Your task to perform on an android device: open the mobile data screen to see how much data has been used Image 0: 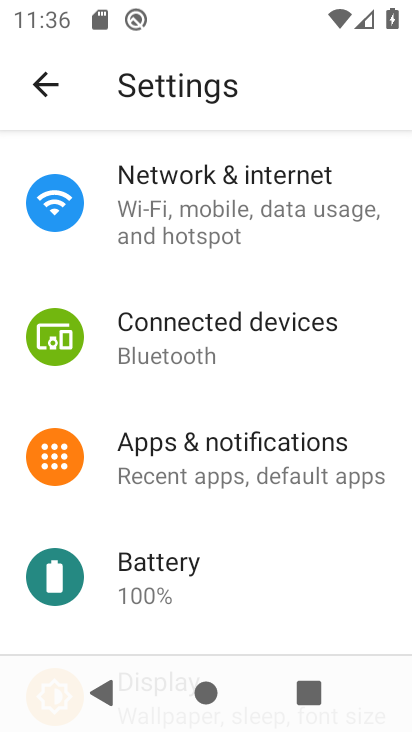
Step 0: click (188, 197)
Your task to perform on an android device: open the mobile data screen to see how much data has been used Image 1: 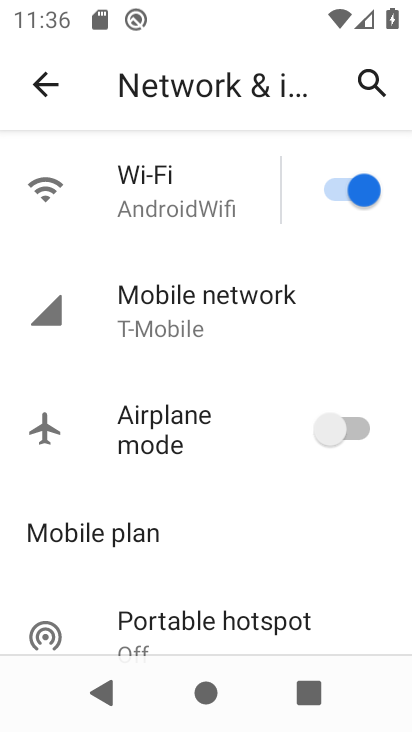
Step 1: click (226, 314)
Your task to perform on an android device: open the mobile data screen to see how much data has been used Image 2: 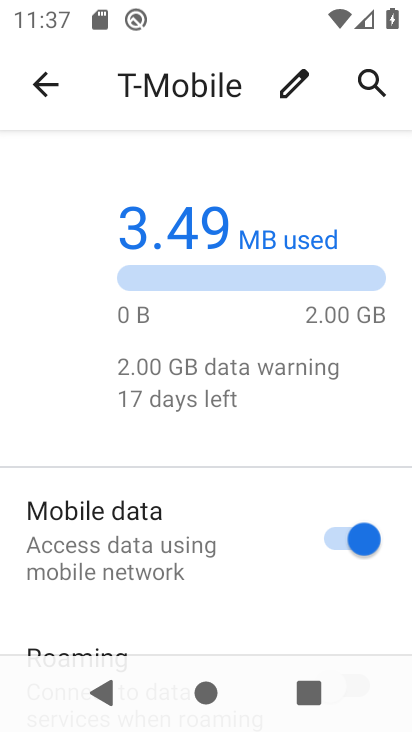
Step 2: drag from (221, 601) to (220, 243)
Your task to perform on an android device: open the mobile data screen to see how much data has been used Image 3: 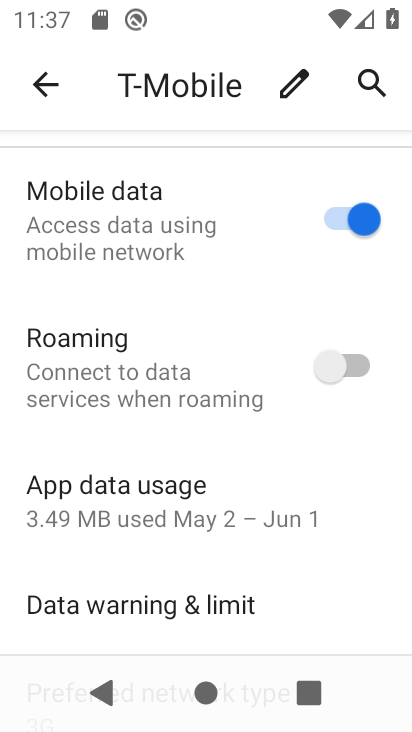
Step 3: click (236, 498)
Your task to perform on an android device: open the mobile data screen to see how much data has been used Image 4: 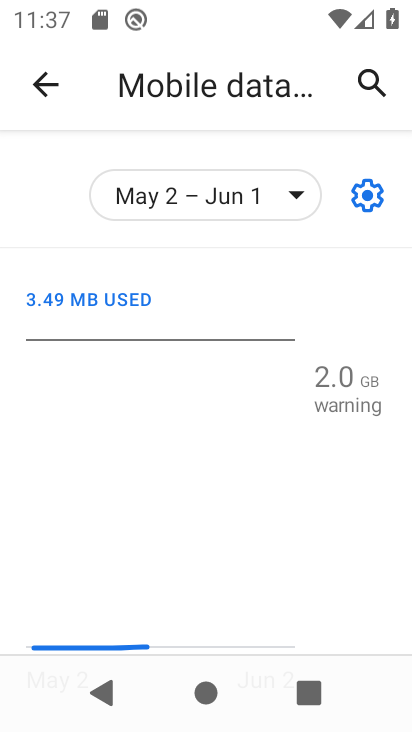
Step 4: task complete